Your task to perform on an android device: Open the map Image 0: 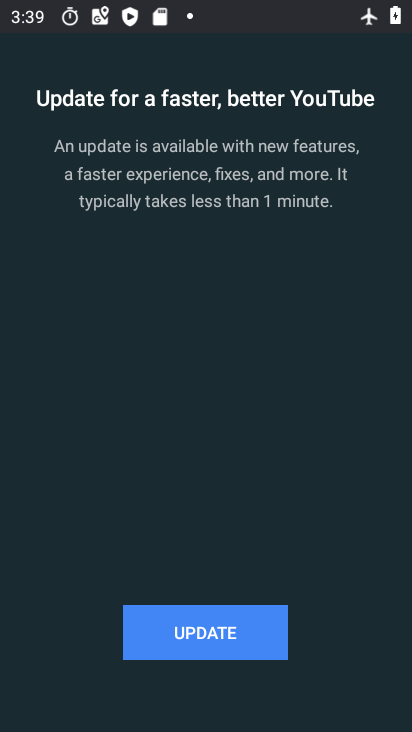
Step 0: press home button
Your task to perform on an android device: Open the map Image 1: 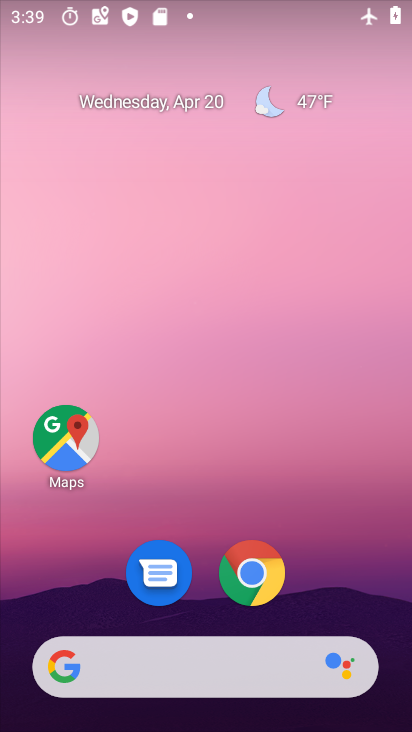
Step 1: drag from (201, 715) to (200, 83)
Your task to perform on an android device: Open the map Image 2: 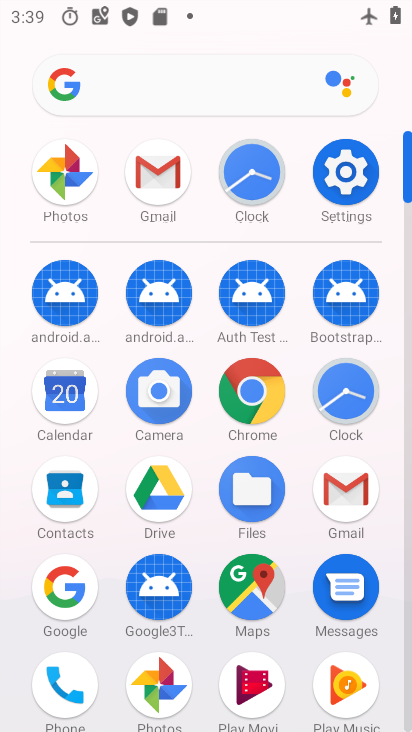
Step 2: click (253, 587)
Your task to perform on an android device: Open the map Image 3: 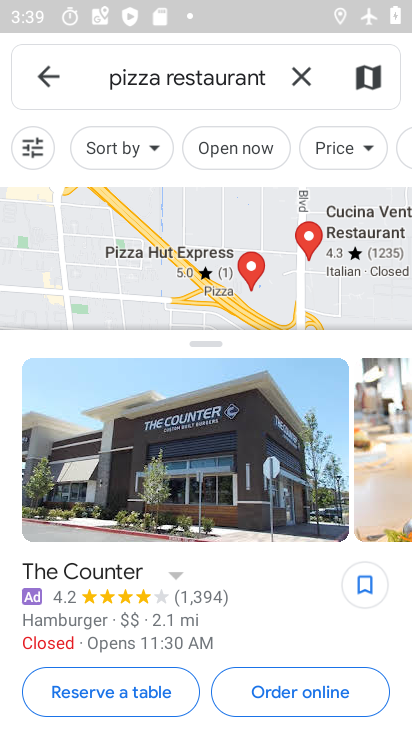
Step 3: task complete